Your task to perform on an android device: Toggle the flashlight Image 0: 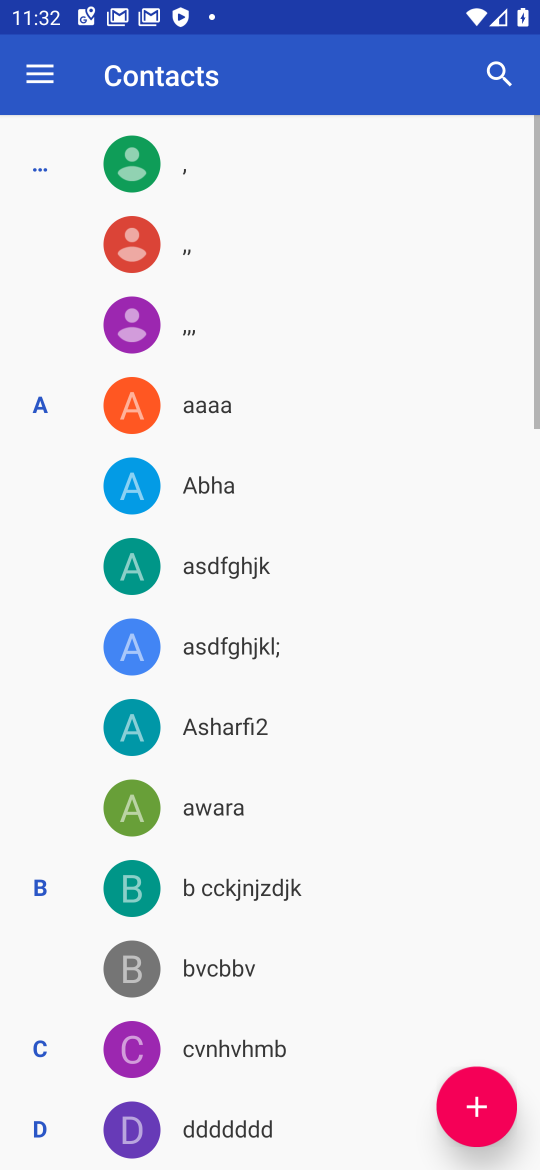
Step 0: press home button
Your task to perform on an android device: Toggle the flashlight Image 1: 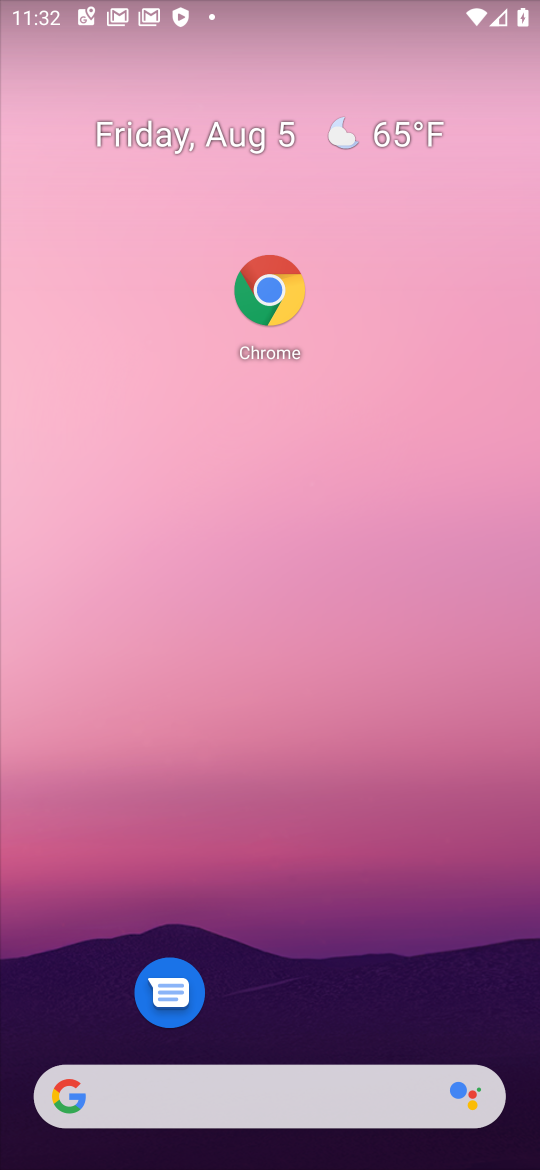
Step 1: drag from (297, 904) to (257, 103)
Your task to perform on an android device: Toggle the flashlight Image 2: 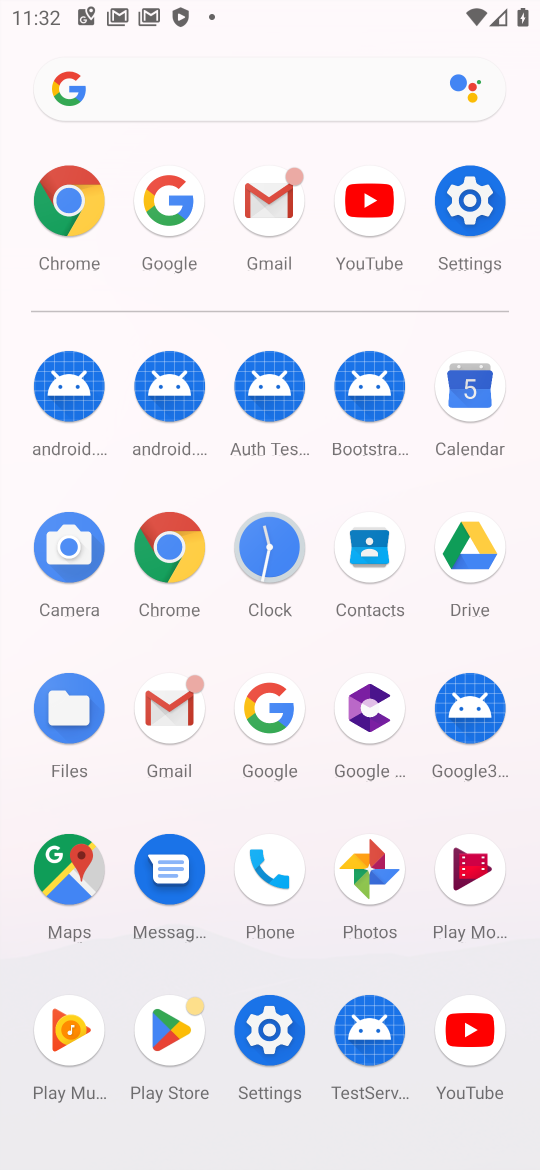
Step 2: click (500, 220)
Your task to perform on an android device: Toggle the flashlight Image 3: 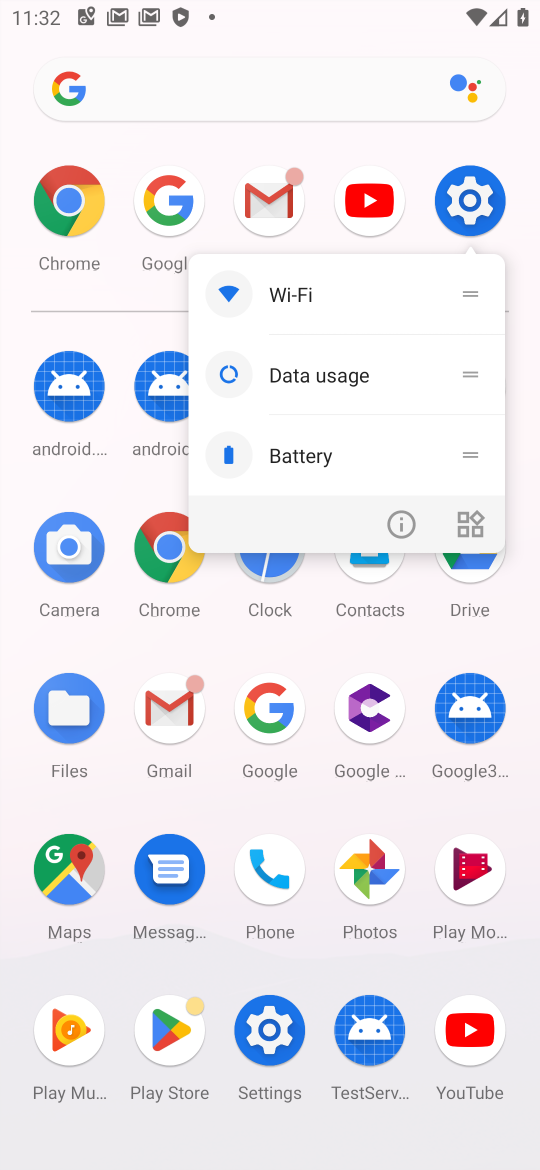
Step 3: click (479, 217)
Your task to perform on an android device: Toggle the flashlight Image 4: 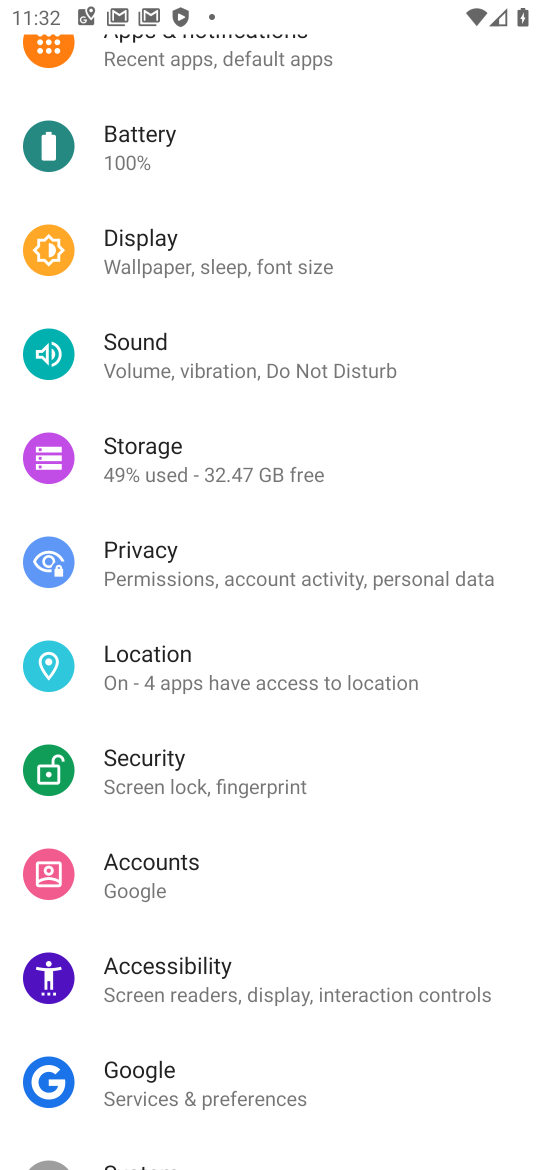
Step 4: task complete